Your task to perform on an android device: Go to privacy settings Image 0: 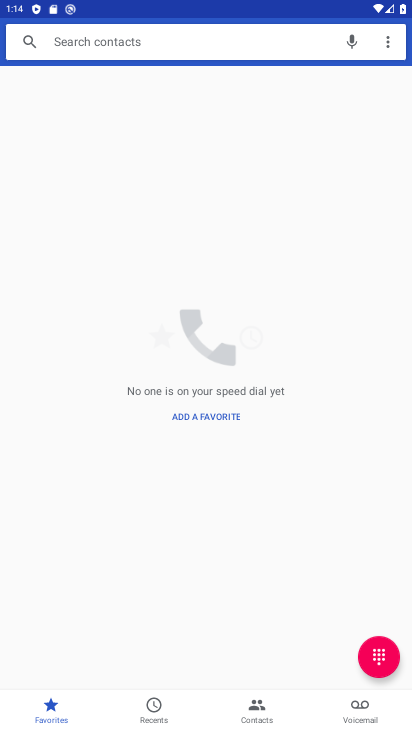
Step 0: press back button
Your task to perform on an android device: Go to privacy settings Image 1: 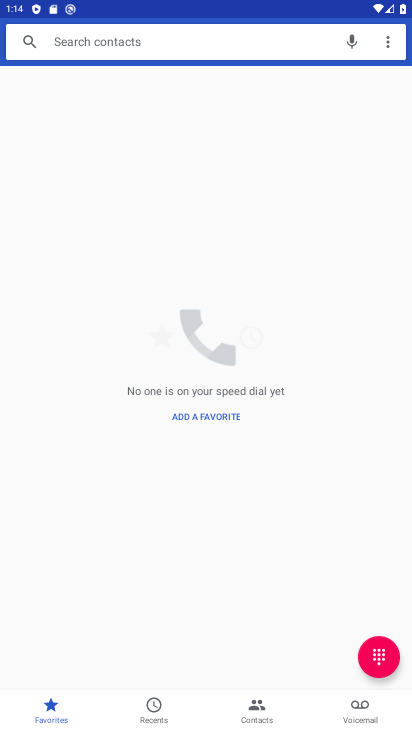
Step 1: press back button
Your task to perform on an android device: Go to privacy settings Image 2: 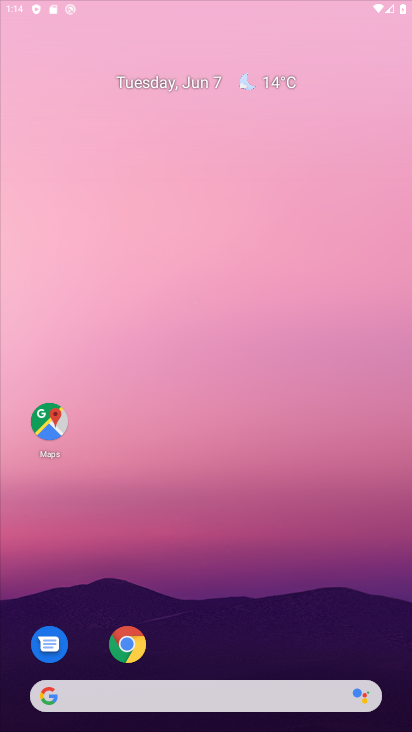
Step 2: press home button
Your task to perform on an android device: Go to privacy settings Image 3: 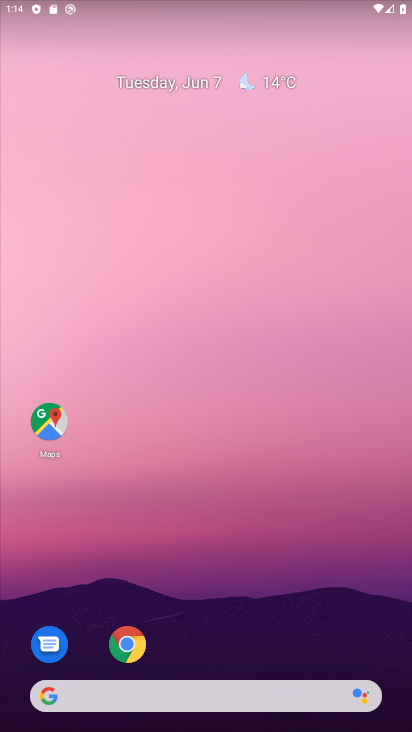
Step 3: drag from (236, 714) to (202, 222)
Your task to perform on an android device: Go to privacy settings Image 4: 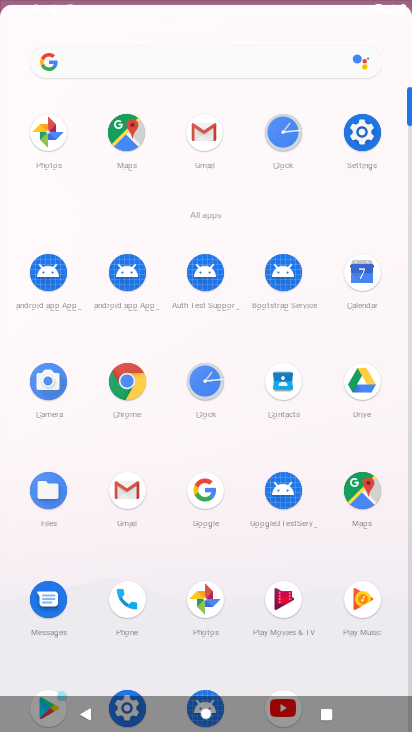
Step 4: drag from (284, 518) to (219, 20)
Your task to perform on an android device: Go to privacy settings Image 5: 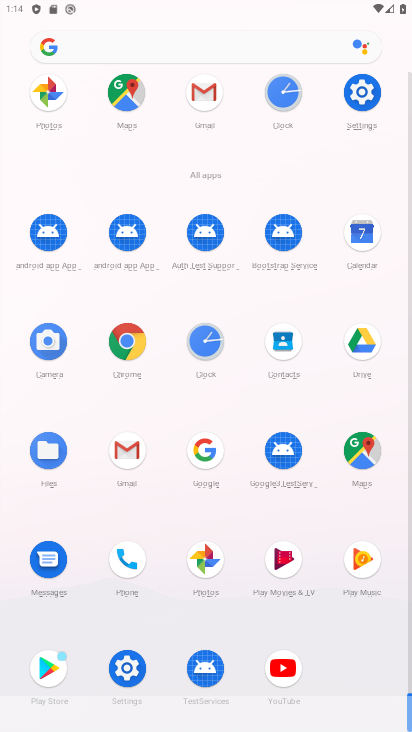
Step 5: click (354, 119)
Your task to perform on an android device: Go to privacy settings Image 6: 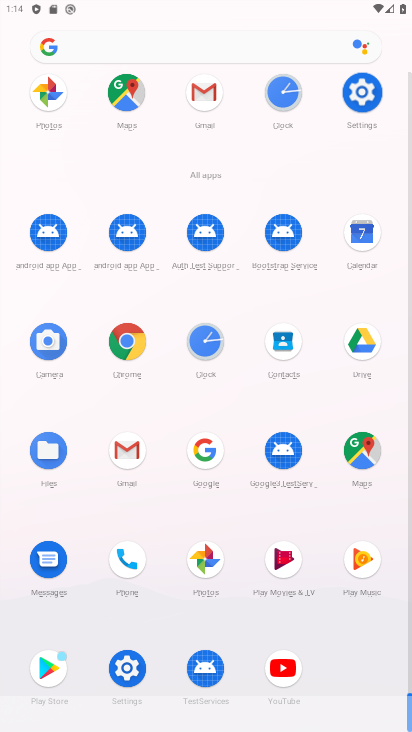
Step 6: click (353, 118)
Your task to perform on an android device: Go to privacy settings Image 7: 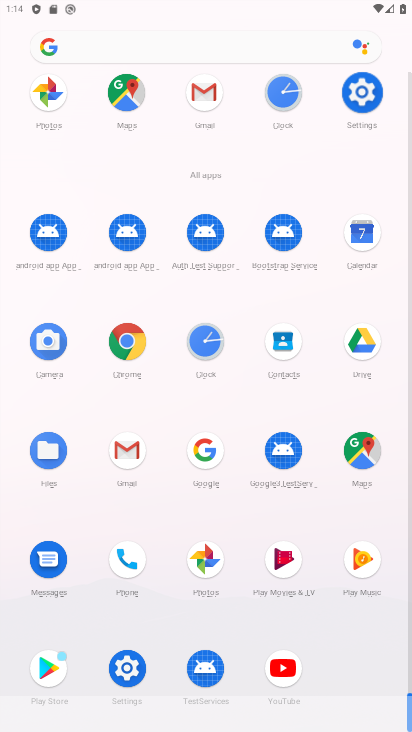
Step 7: click (353, 120)
Your task to perform on an android device: Go to privacy settings Image 8: 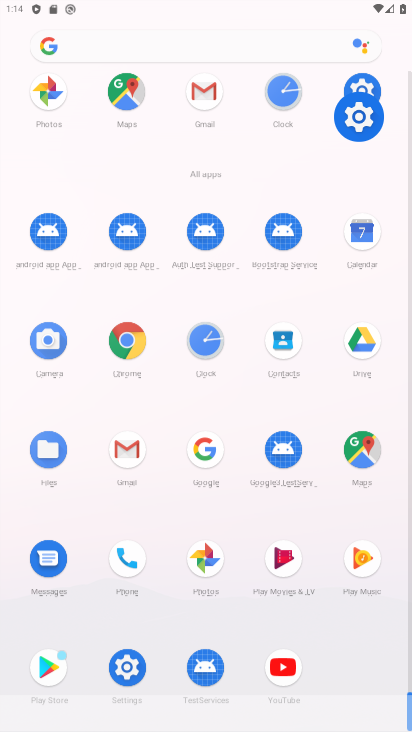
Step 8: click (353, 100)
Your task to perform on an android device: Go to privacy settings Image 9: 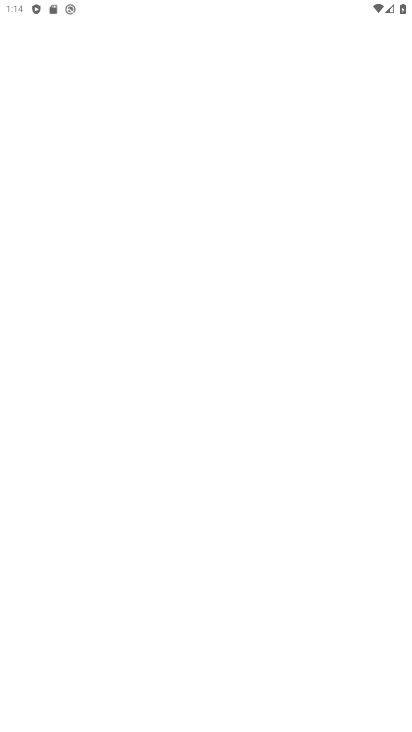
Step 9: click (352, 107)
Your task to perform on an android device: Go to privacy settings Image 10: 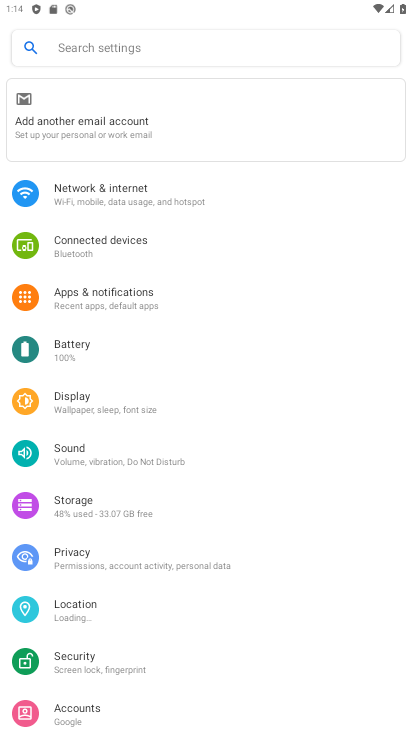
Step 10: click (80, 550)
Your task to perform on an android device: Go to privacy settings Image 11: 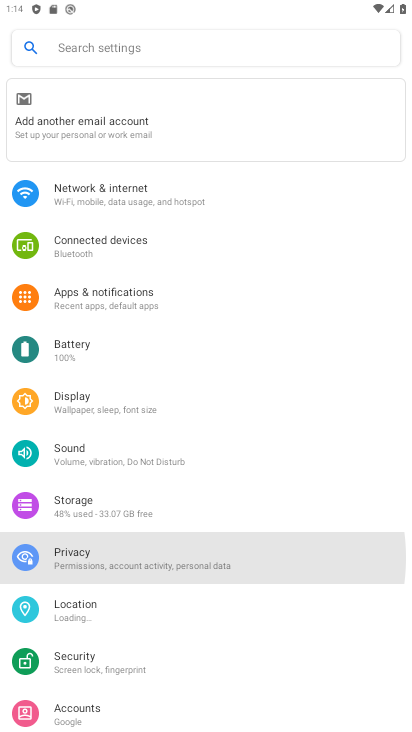
Step 11: click (80, 550)
Your task to perform on an android device: Go to privacy settings Image 12: 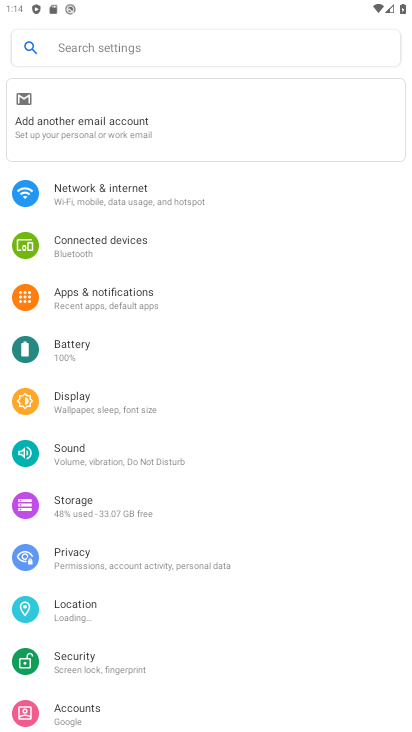
Step 12: click (80, 550)
Your task to perform on an android device: Go to privacy settings Image 13: 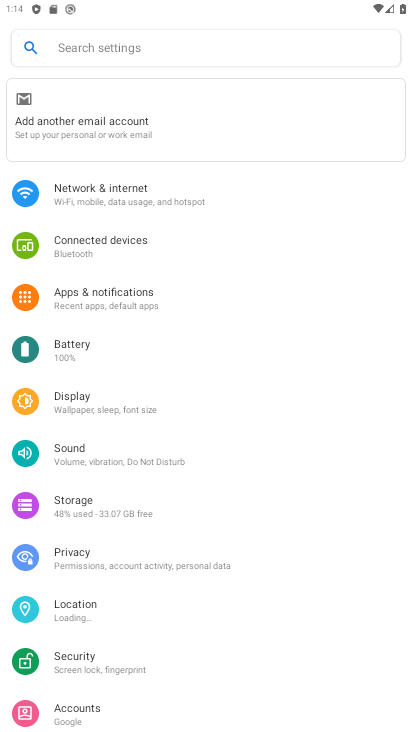
Step 13: click (82, 550)
Your task to perform on an android device: Go to privacy settings Image 14: 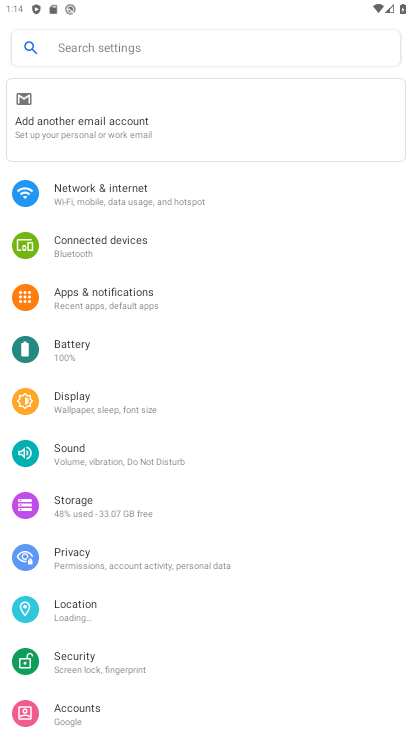
Step 14: click (83, 550)
Your task to perform on an android device: Go to privacy settings Image 15: 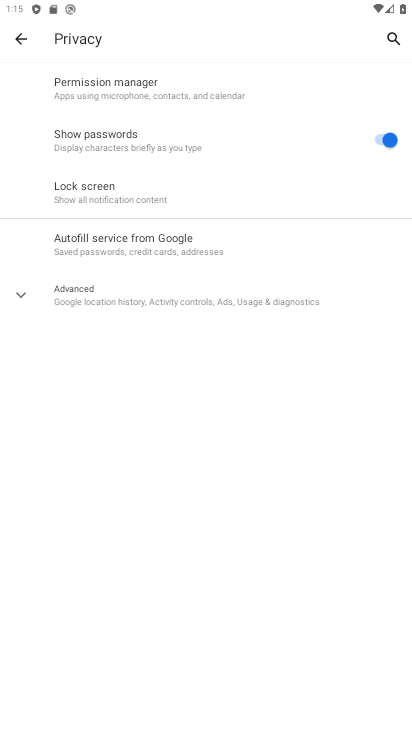
Step 15: task complete